Your task to perform on an android device: open chrome privacy settings Image 0: 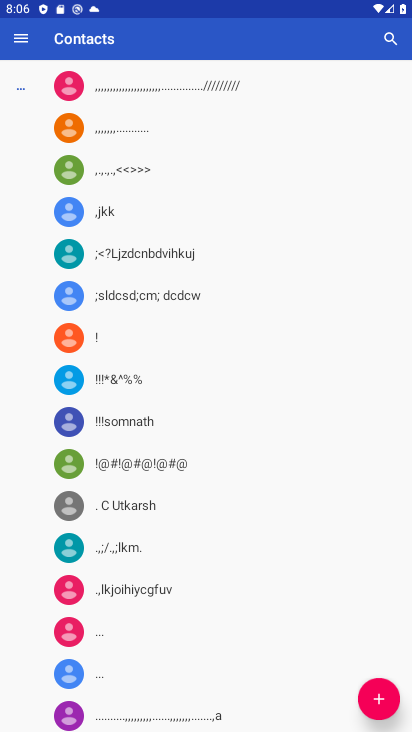
Step 0: press home button
Your task to perform on an android device: open chrome privacy settings Image 1: 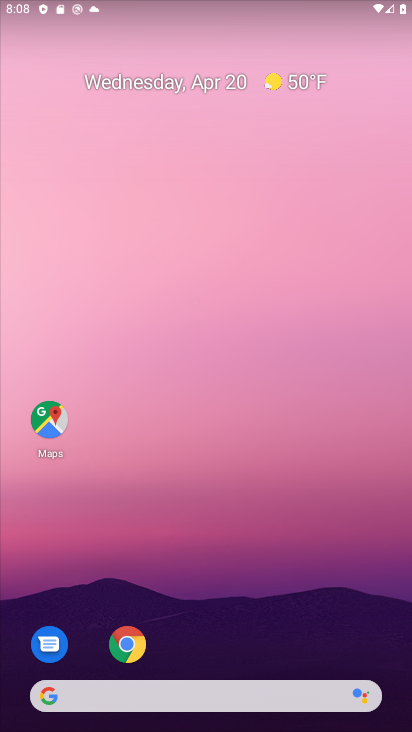
Step 1: click (132, 646)
Your task to perform on an android device: open chrome privacy settings Image 2: 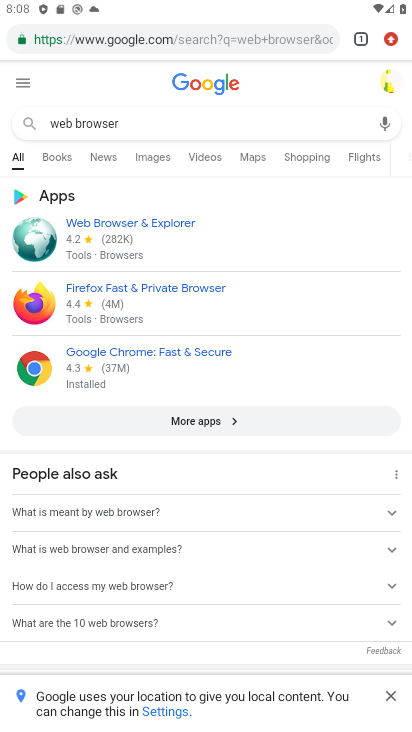
Step 2: drag from (389, 38) to (246, 478)
Your task to perform on an android device: open chrome privacy settings Image 3: 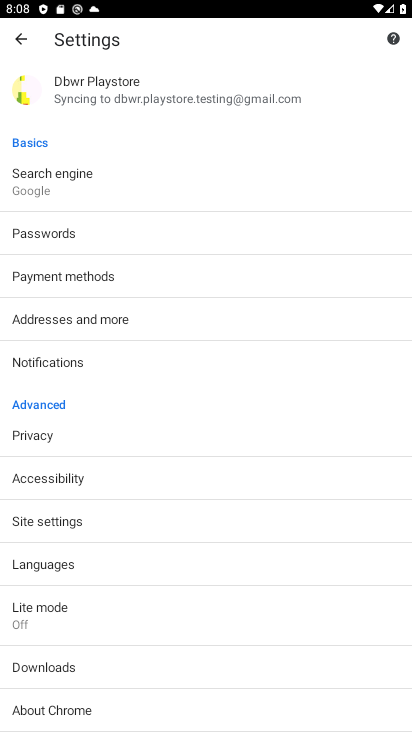
Step 3: drag from (232, 589) to (210, 240)
Your task to perform on an android device: open chrome privacy settings Image 4: 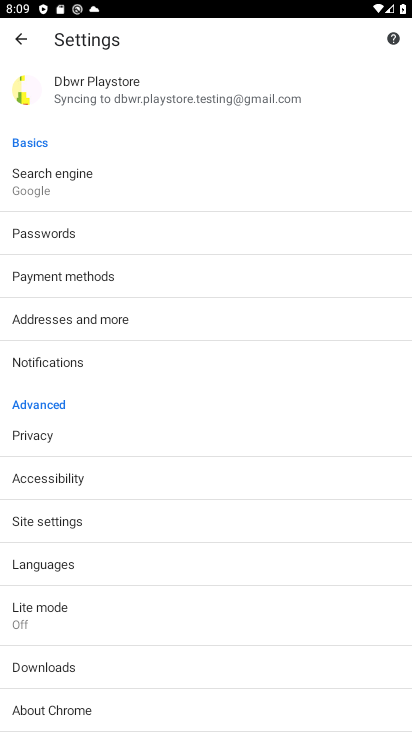
Step 4: click (109, 437)
Your task to perform on an android device: open chrome privacy settings Image 5: 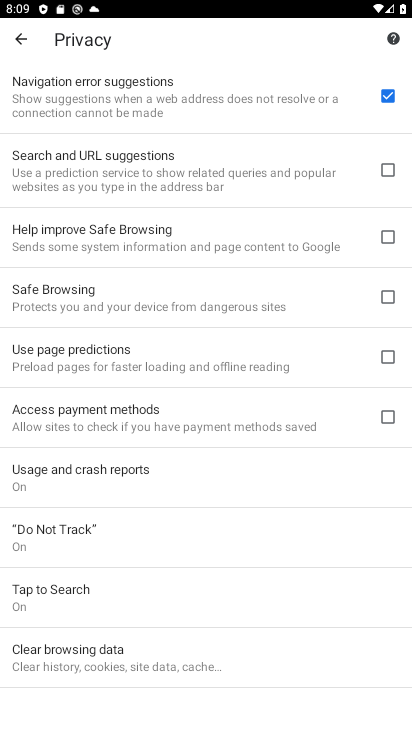
Step 5: task complete